Your task to perform on an android device: Toggle the flashlight Image 0: 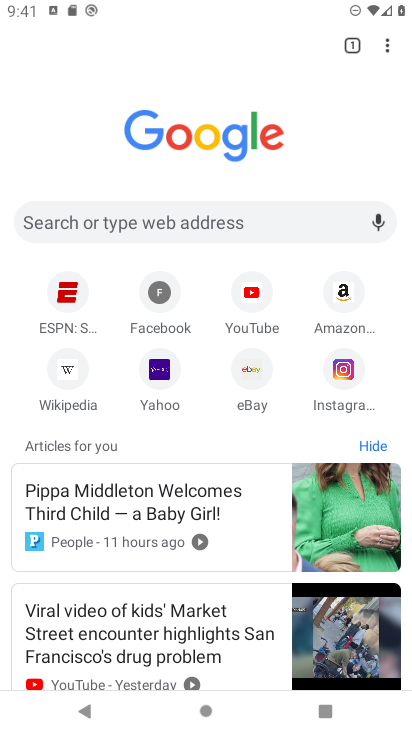
Step 0: press home button
Your task to perform on an android device: Toggle the flashlight Image 1: 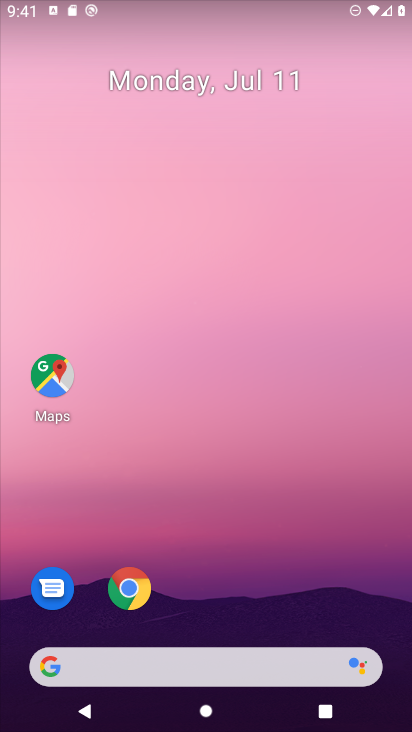
Step 1: drag from (395, 698) to (7, 228)
Your task to perform on an android device: Toggle the flashlight Image 2: 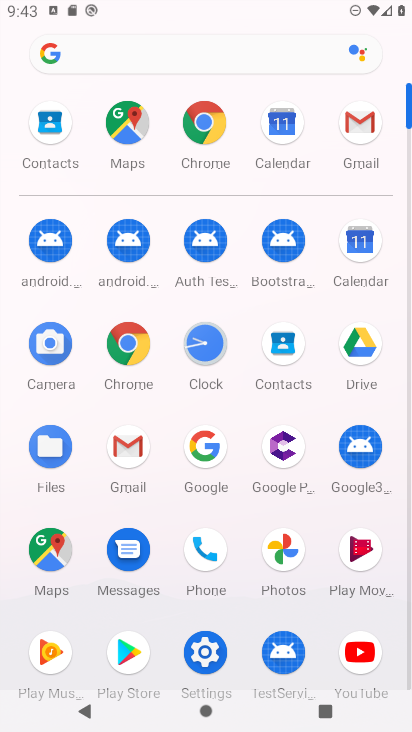
Step 2: click (202, 649)
Your task to perform on an android device: Toggle the flashlight Image 3: 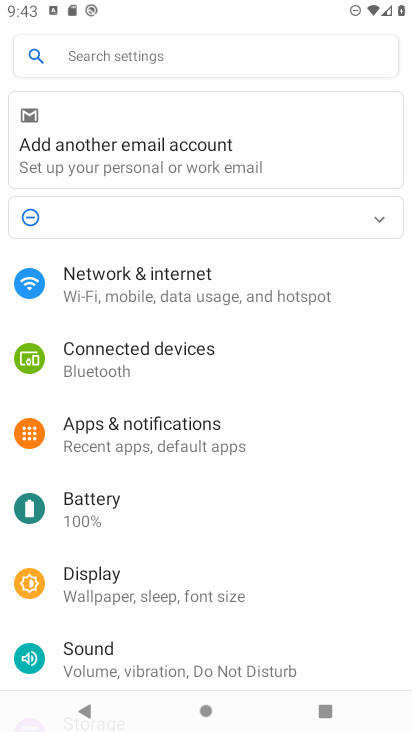
Step 3: task complete